Your task to perform on an android device: Go to network settings Image 0: 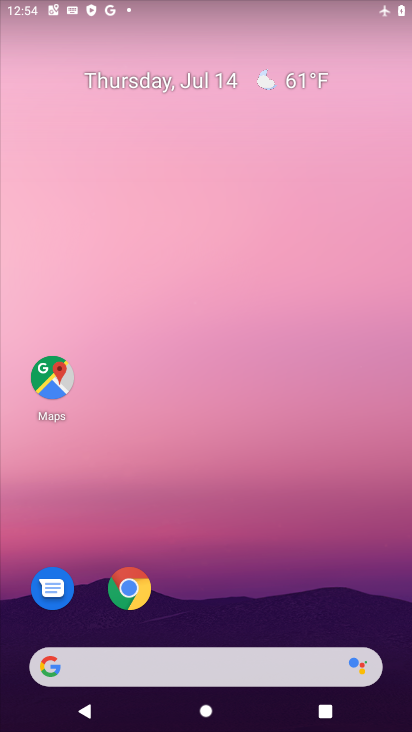
Step 0: drag from (216, 586) to (231, 156)
Your task to perform on an android device: Go to network settings Image 1: 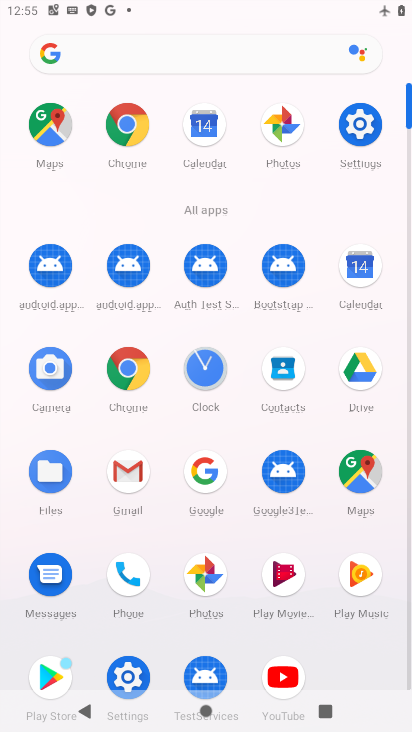
Step 1: click (121, 664)
Your task to perform on an android device: Go to network settings Image 2: 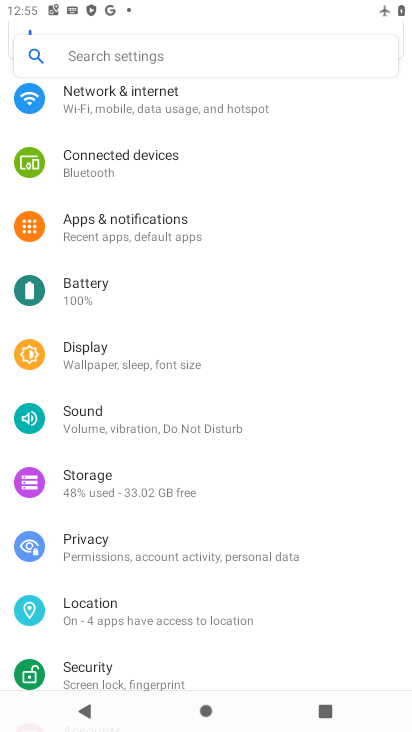
Step 2: click (184, 104)
Your task to perform on an android device: Go to network settings Image 3: 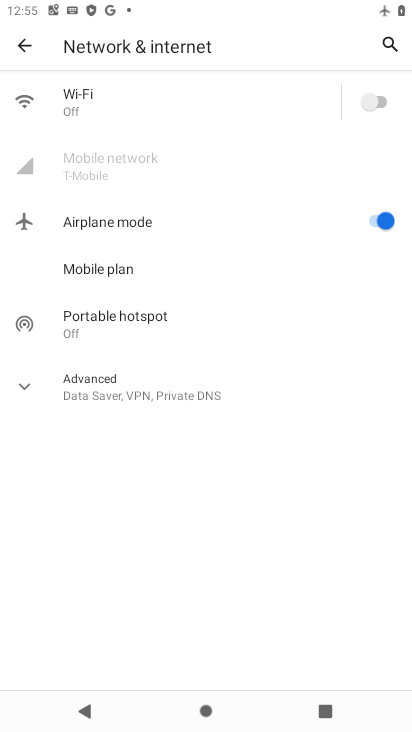
Step 3: task complete